Your task to perform on an android device: Open calendar and show me the third week of next month Image 0: 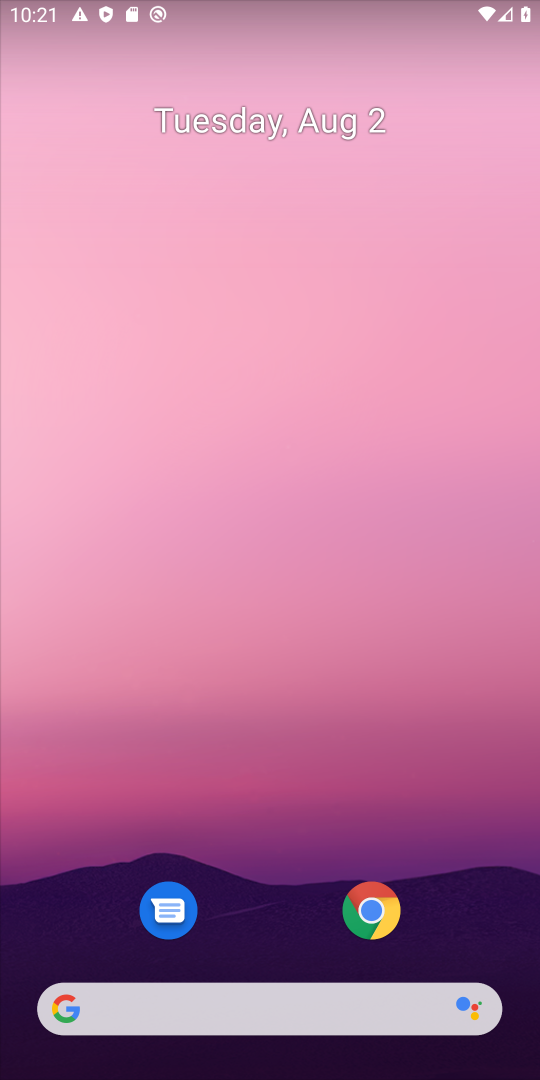
Step 0: drag from (322, 955) to (198, 3)
Your task to perform on an android device: Open calendar and show me the third week of next month Image 1: 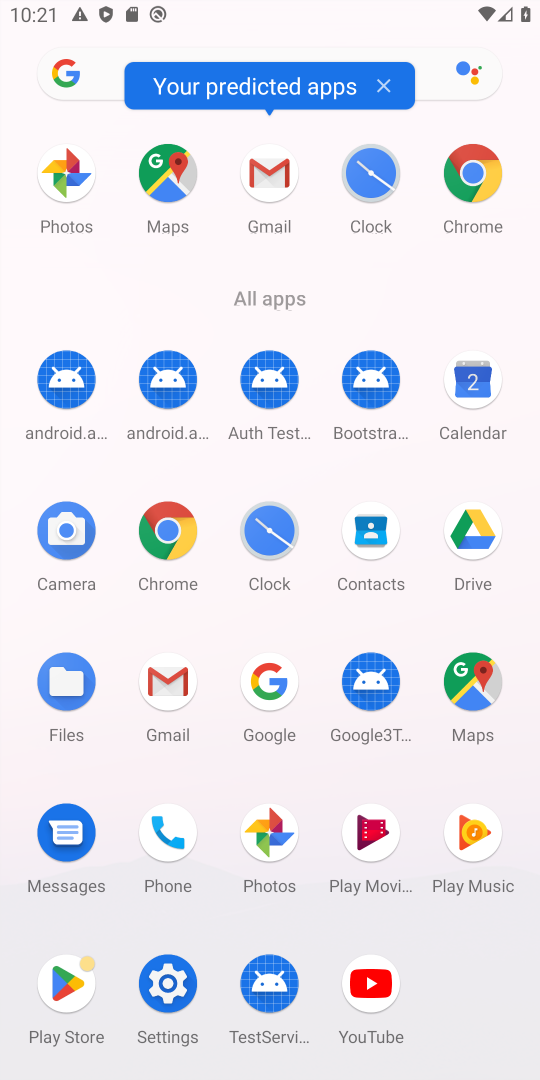
Step 1: click (485, 375)
Your task to perform on an android device: Open calendar and show me the third week of next month Image 2: 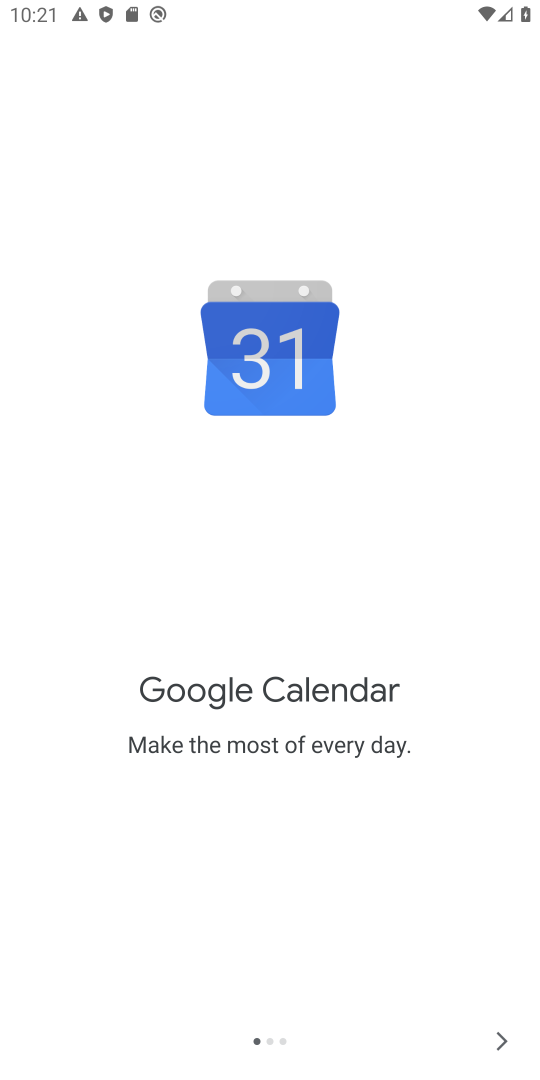
Step 2: click (499, 1047)
Your task to perform on an android device: Open calendar and show me the third week of next month Image 3: 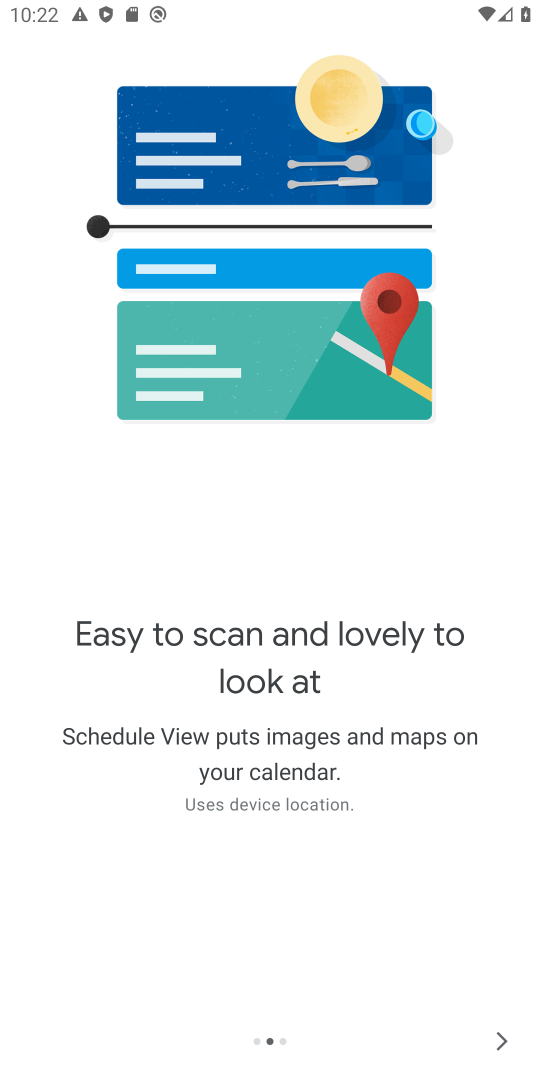
Step 3: click (504, 1044)
Your task to perform on an android device: Open calendar and show me the third week of next month Image 4: 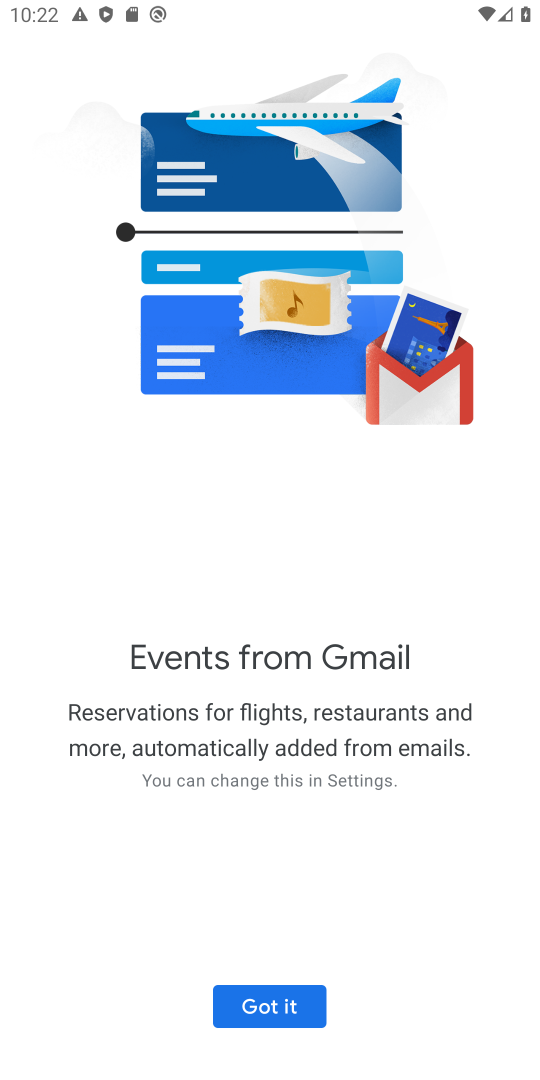
Step 4: click (269, 1001)
Your task to perform on an android device: Open calendar and show me the third week of next month Image 5: 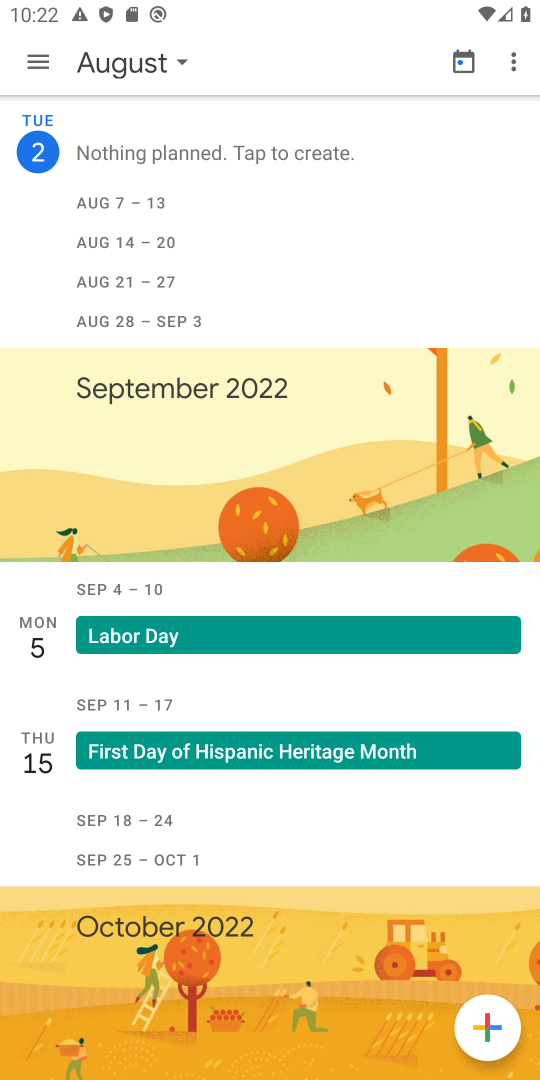
Step 5: click (29, 64)
Your task to perform on an android device: Open calendar and show me the third week of next month Image 6: 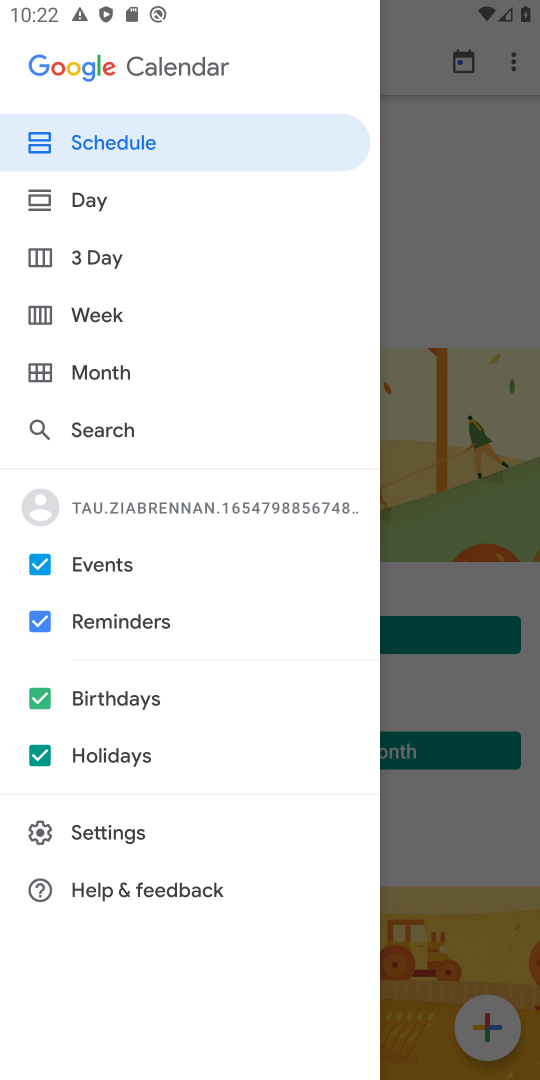
Step 6: click (124, 311)
Your task to perform on an android device: Open calendar and show me the third week of next month Image 7: 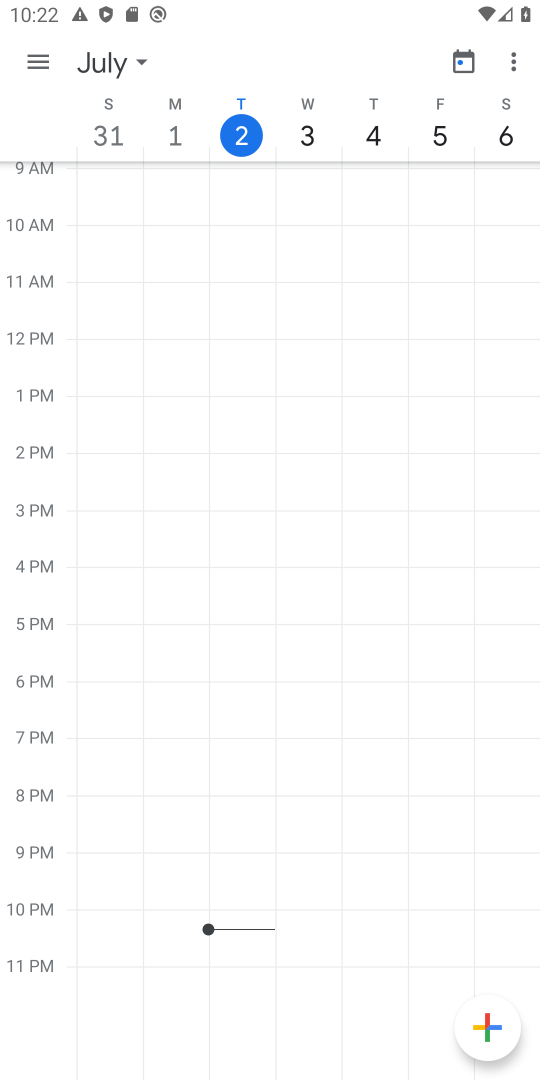
Step 7: task complete